Your task to perform on an android device: Open Google Image 0: 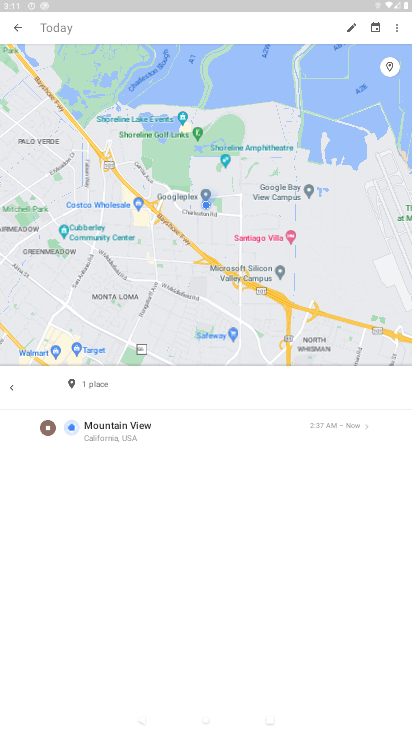
Step 0: press home button
Your task to perform on an android device: Open Google Image 1: 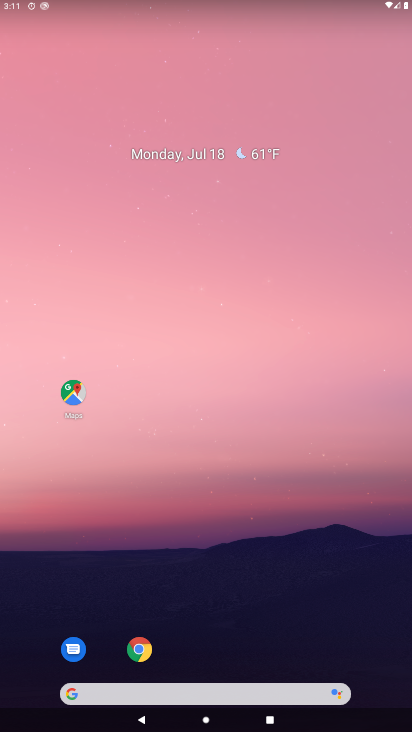
Step 1: click (263, 13)
Your task to perform on an android device: Open Google Image 2: 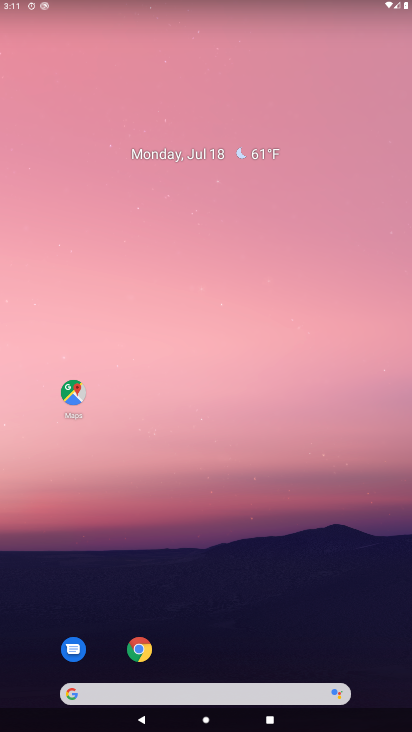
Step 2: click (111, 698)
Your task to perform on an android device: Open Google Image 3: 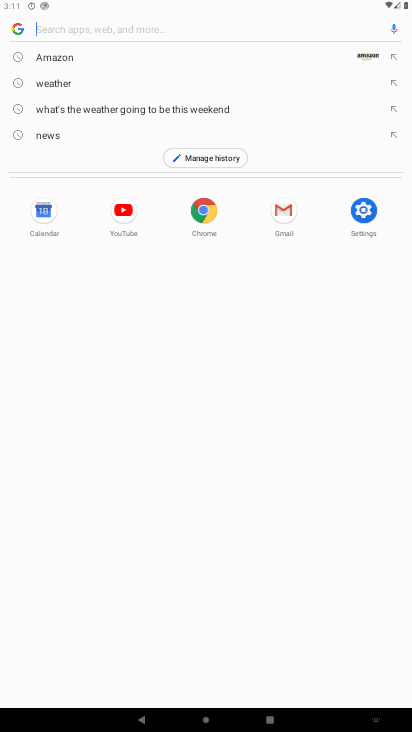
Step 3: task complete